Your task to perform on an android device: toggle airplane mode Image 0: 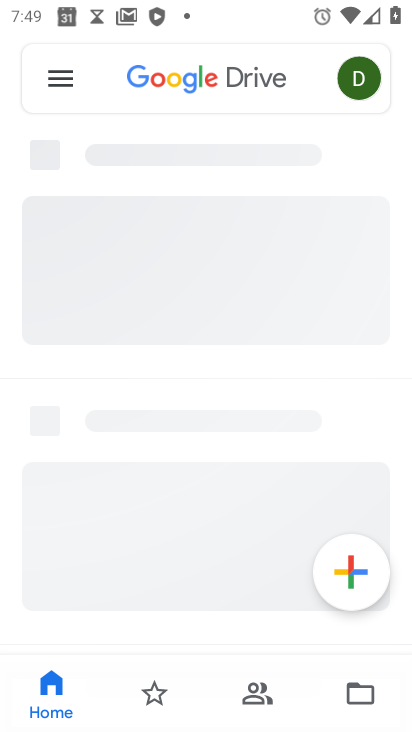
Step 0: press home button
Your task to perform on an android device: toggle airplane mode Image 1: 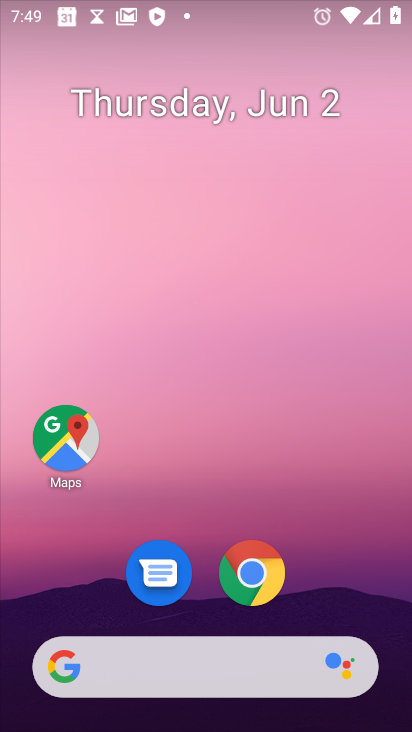
Step 1: drag from (170, 671) to (326, 101)
Your task to perform on an android device: toggle airplane mode Image 2: 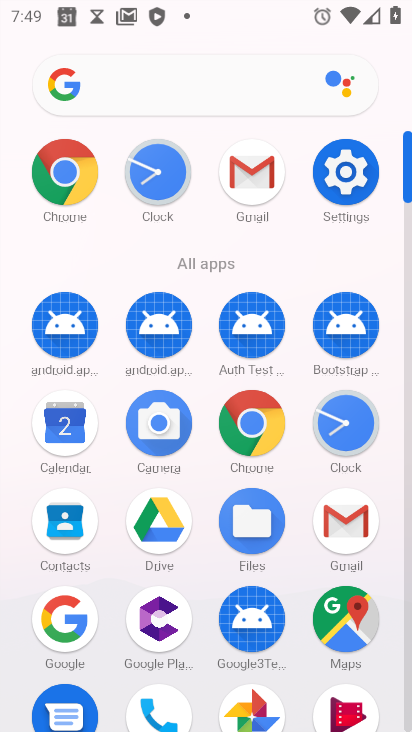
Step 2: click (348, 173)
Your task to perform on an android device: toggle airplane mode Image 3: 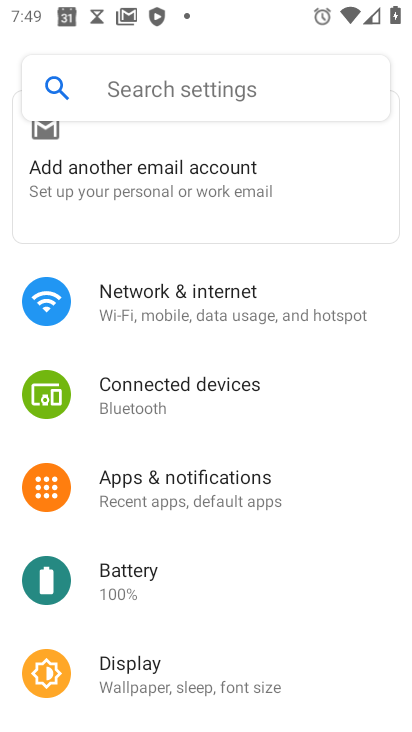
Step 3: click (245, 315)
Your task to perform on an android device: toggle airplane mode Image 4: 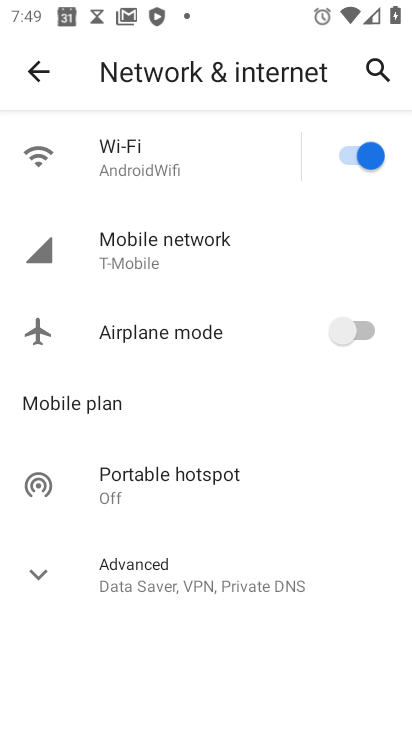
Step 4: click (366, 326)
Your task to perform on an android device: toggle airplane mode Image 5: 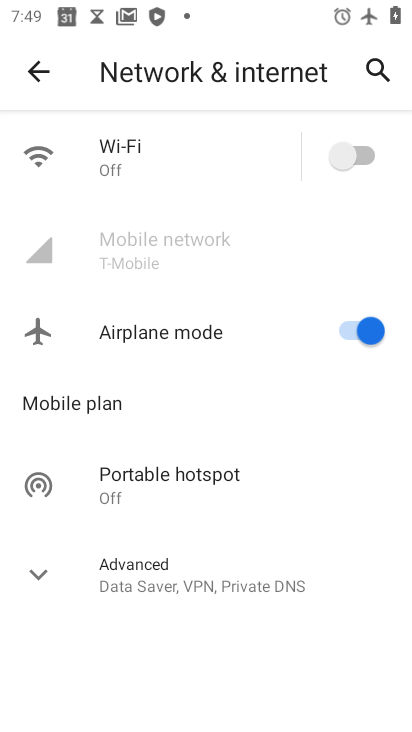
Step 5: task complete